Your task to perform on an android device: Open the web browser Image 0: 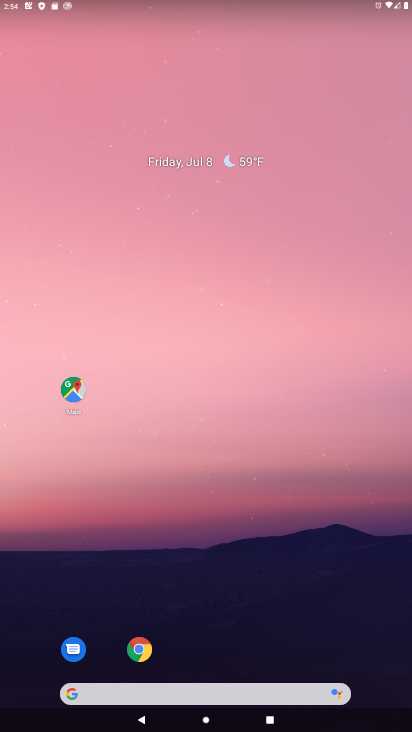
Step 0: drag from (274, 632) to (236, 191)
Your task to perform on an android device: Open the web browser Image 1: 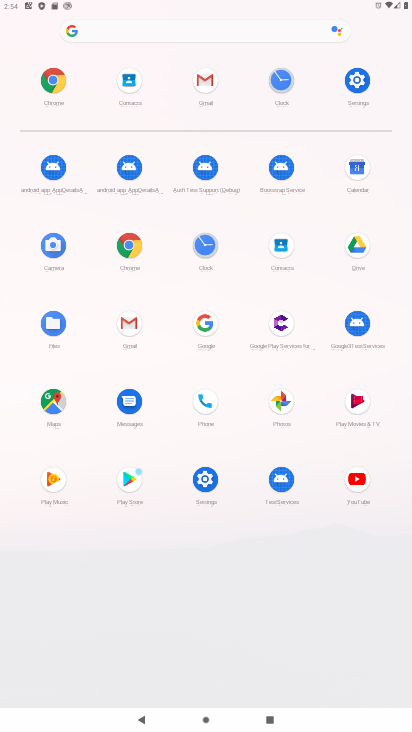
Step 1: click (48, 79)
Your task to perform on an android device: Open the web browser Image 2: 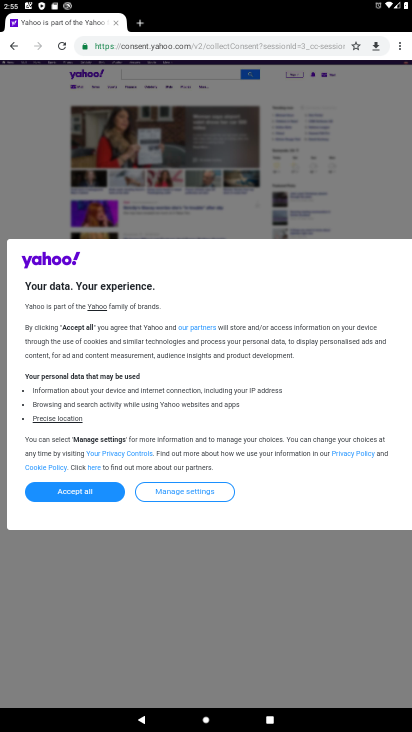
Step 2: task complete